Your task to perform on an android device: check android version Image 0: 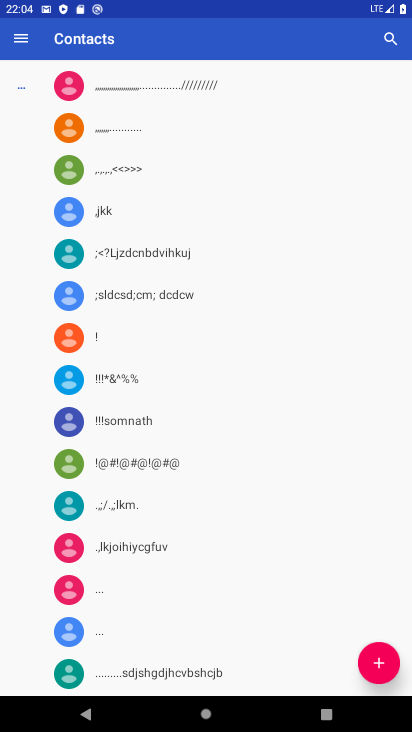
Step 0: press home button
Your task to perform on an android device: check android version Image 1: 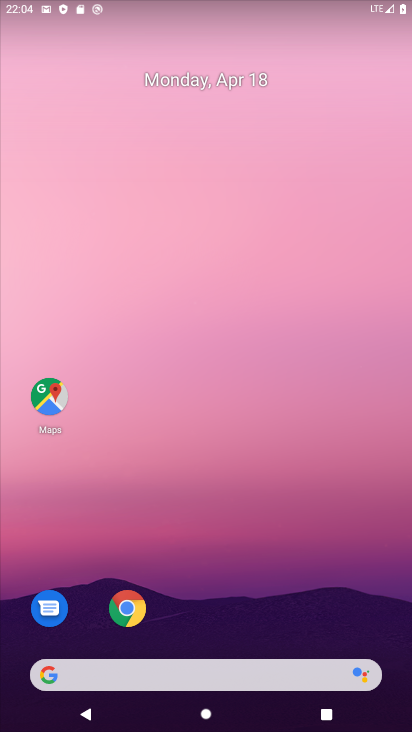
Step 1: drag from (199, 603) to (176, 97)
Your task to perform on an android device: check android version Image 2: 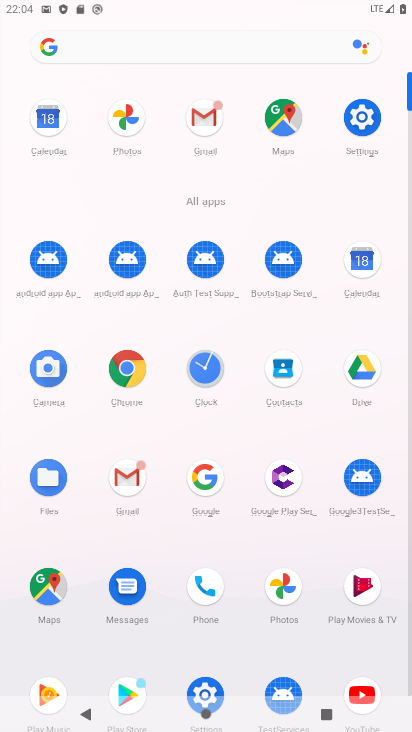
Step 2: click (363, 118)
Your task to perform on an android device: check android version Image 3: 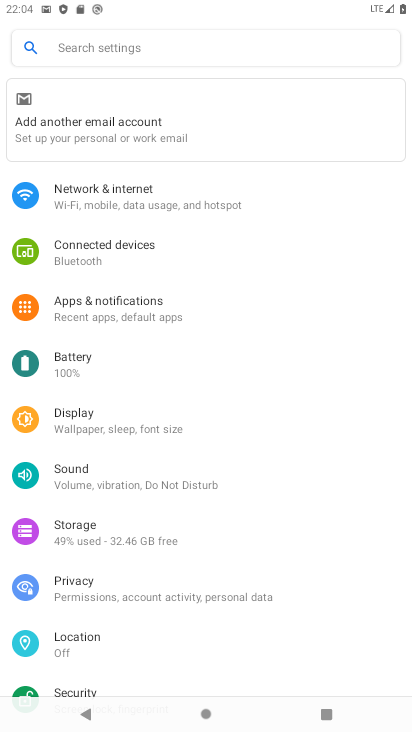
Step 3: drag from (164, 629) to (188, 202)
Your task to perform on an android device: check android version Image 4: 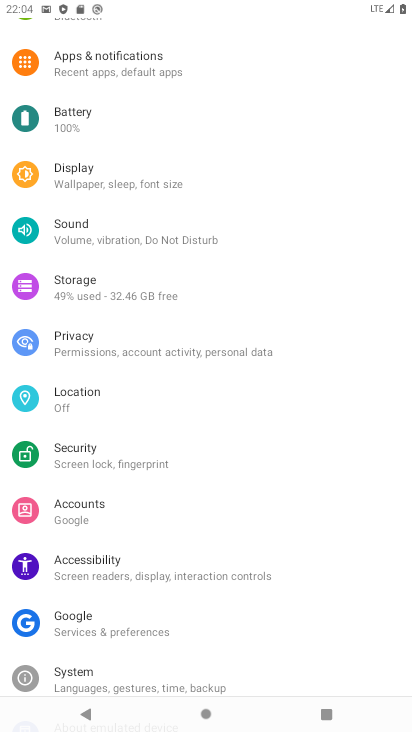
Step 4: drag from (135, 650) to (181, 377)
Your task to perform on an android device: check android version Image 5: 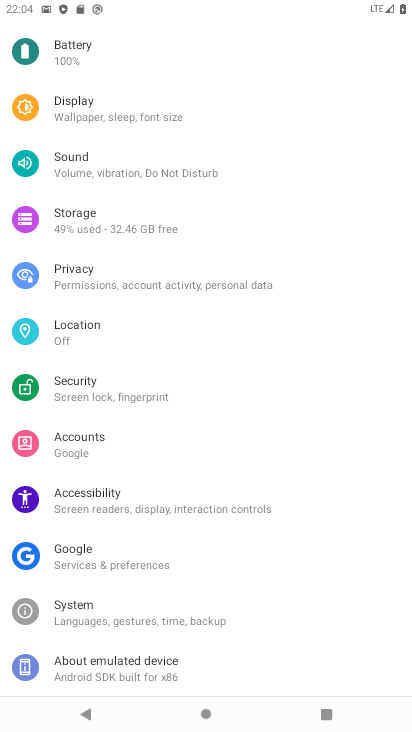
Step 5: click (111, 659)
Your task to perform on an android device: check android version Image 6: 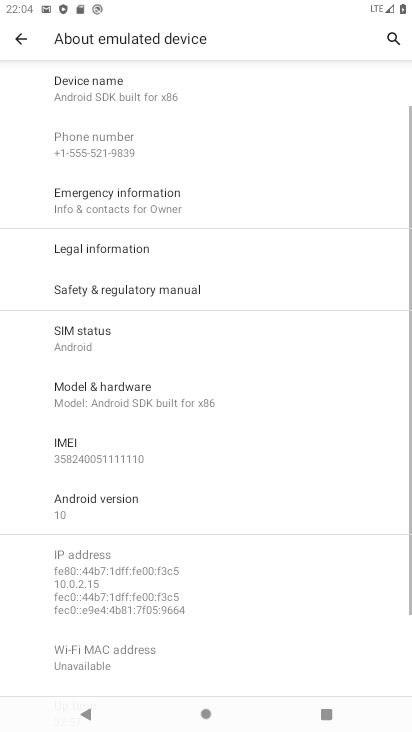
Step 6: click (125, 500)
Your task to perform on an android device: check android version Image 7: 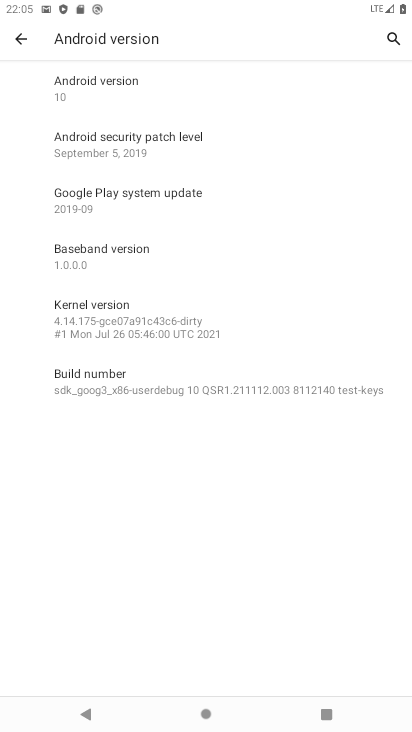
Step 7: click (105, 91)
Your task to perform on an android device: check android version Image 8: 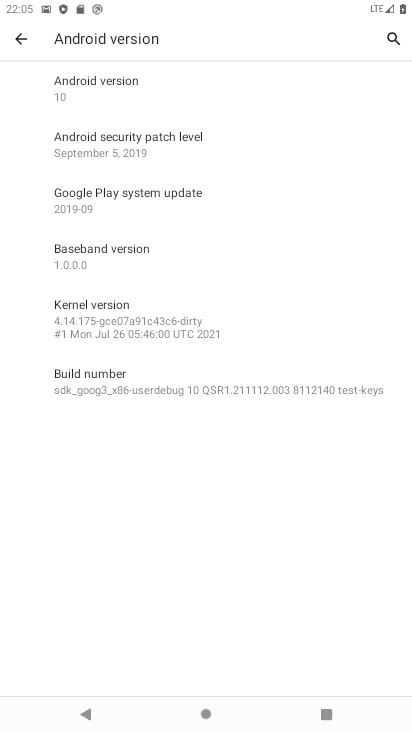
Step 8: task complete